Your task to perform on an android device: Go to settings Image 0: 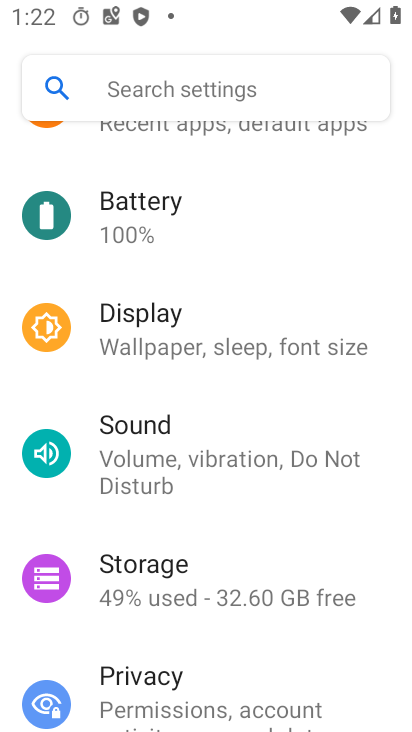
Step 0: task complete